Your task to perform on an android device: Open Youtube and go to "Your channel" Image 0: 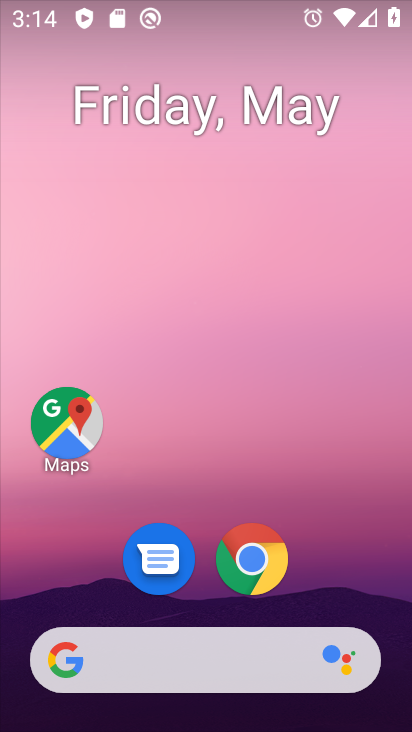
Step 0: drag from (362, 575) to (324, 92)
Your task to perform on an android device: Open Youtube and go to "Your channel" Image 1: 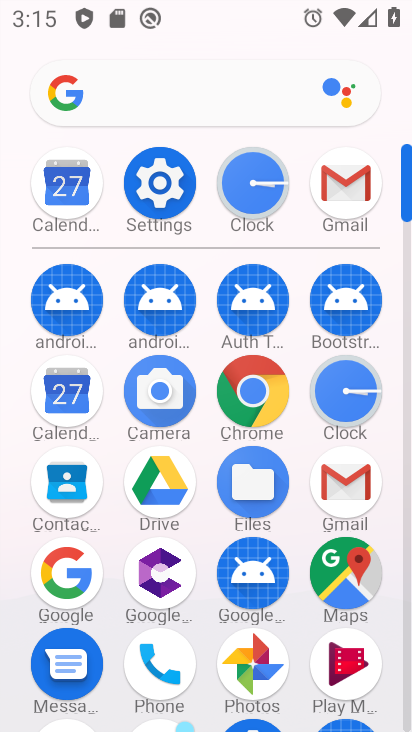
Step 1: click (406, 698)
Your task to perform on an android device: Open Youtube and go to "Your channel" Image 2: 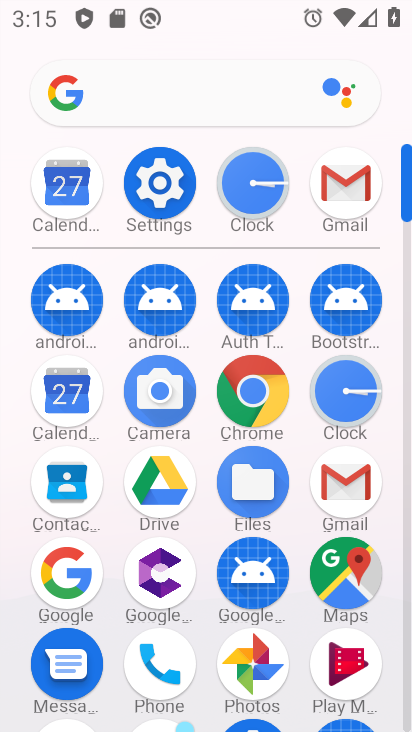
Step 2: click (406, 698)
Your task to perform on an android device: Open Youtube and go to "Your channel" Image 3: 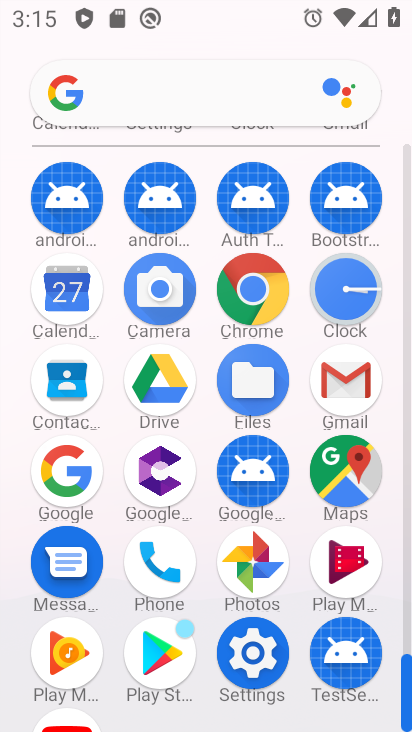
Step 3: click (65, 725)
Your task to perform on an android device: Open Youtube and go to "Your channel" Image 4: 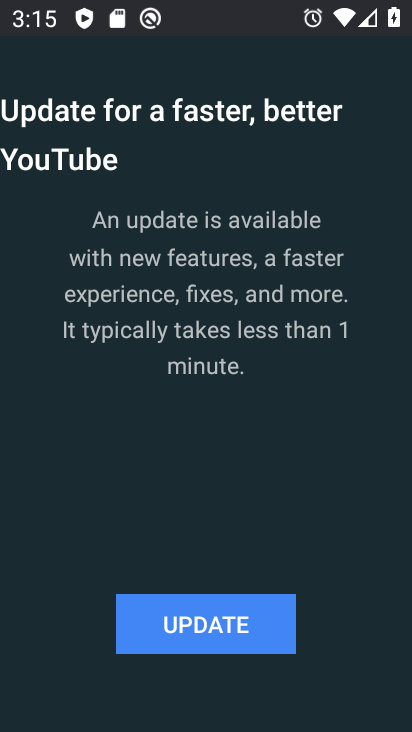
Step 4: click (195, 645)
Your task to perform on an android device: Open Youtube and go to "Your channel" Image 5: 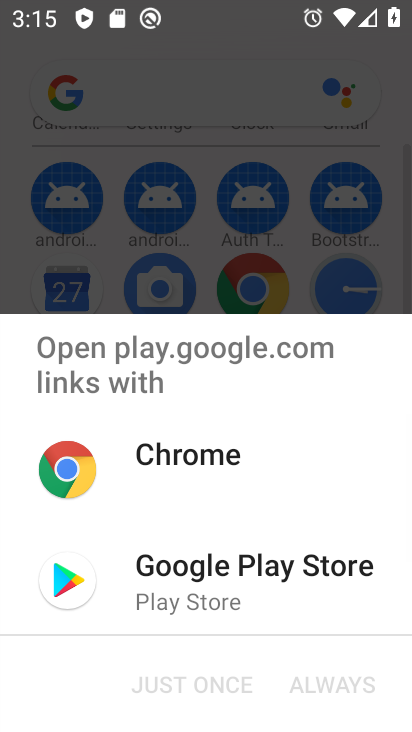
Step 5: click (221, 576)
Your task to perform on an android device: Open Youtube and go to "Your channel" Image 6: 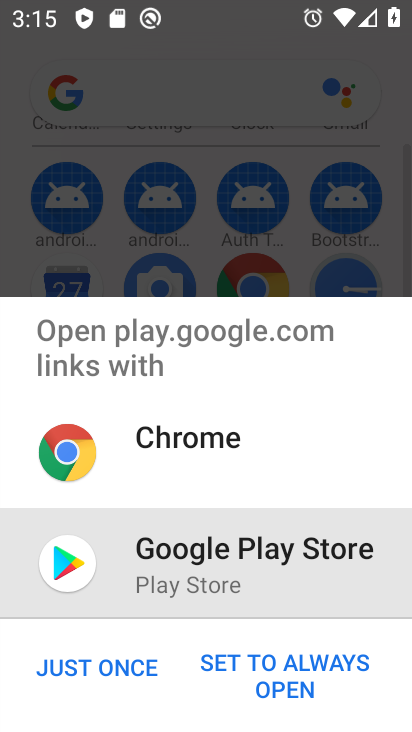
Step 6: click (62, 679)
Your task to perform on an android device: Open Youtube and go to "Your channel" Image 7: 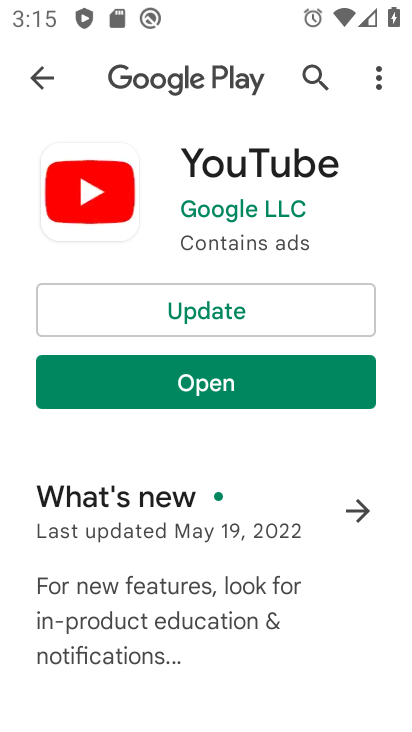
Step 7: click (281, 305)
Your task to perform on an android device: Open Youtube and go to "Your channel" Image 8: 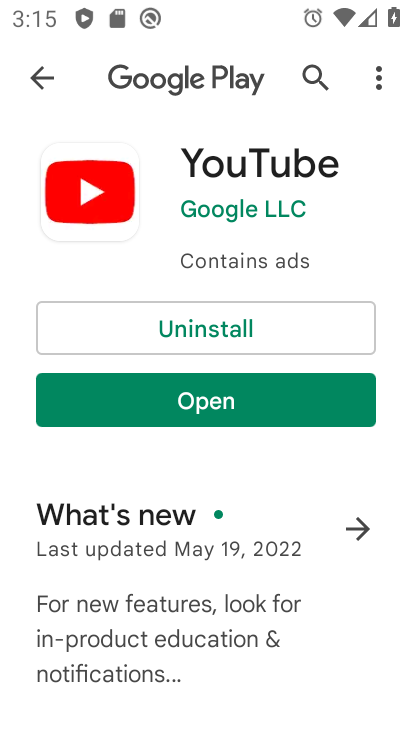
Step 8: click (281, 305)
Your task to perform on an android device: Open Youtube and go to "Your channel" Image 9: 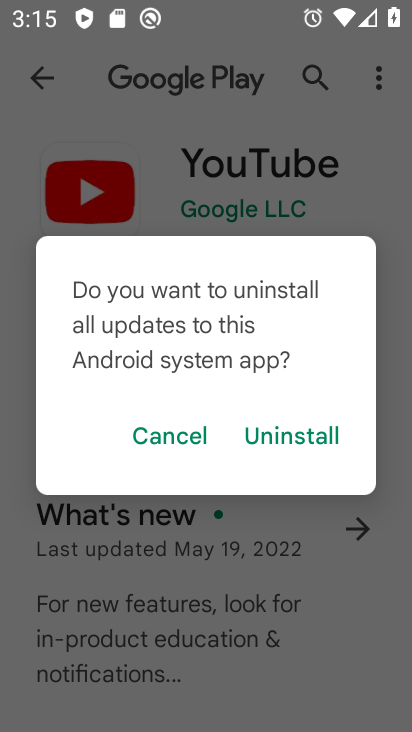
Step 9: click (189, 452)
Your task to perform on an android device: Open Youtube and go to "Your channel" Image 10: 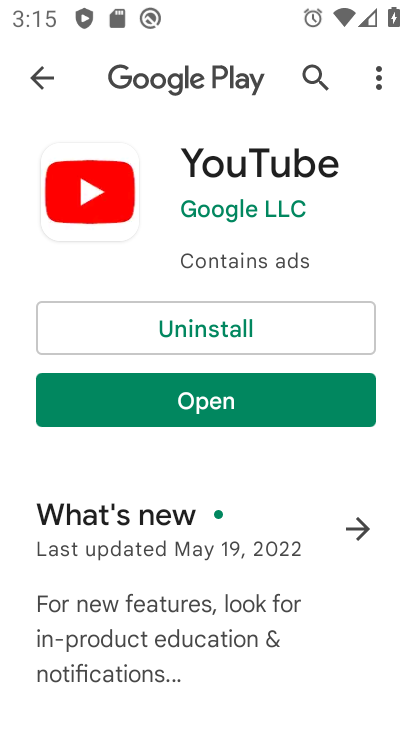
Step 10: click (250, 411)
Your task to perform on an android device: Open Youtube and go to "Your channel" Image 11: 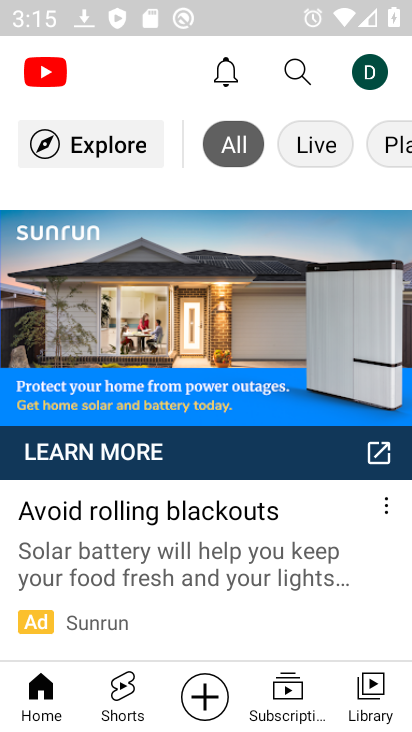
Step 11: click (383, 718)
Your task to perform on an android device: Open Youtube and go to "Your channel" Image 12: 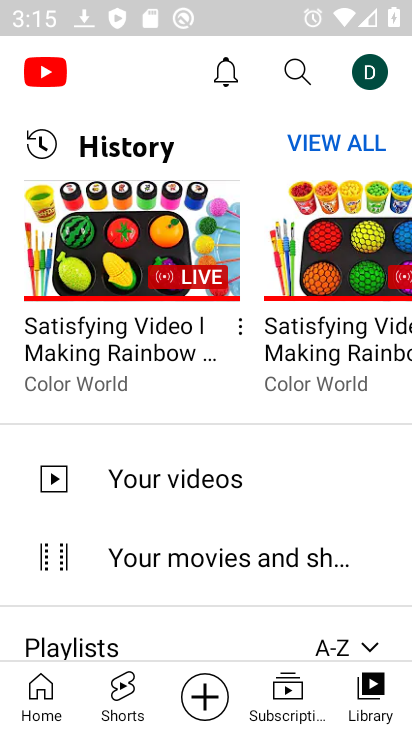
Step 12: click (365, 93)
Your task to perform on an android device: Open Youtube and go to "Your channel" Image 13: 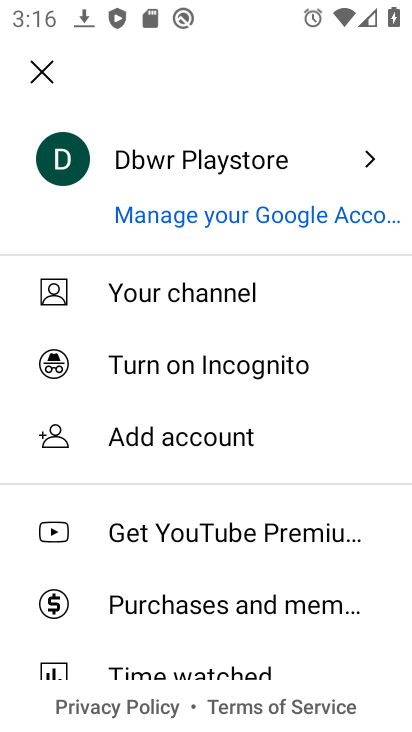
Step 13: click (226, 300)
Your task to perform on an android device: Open Youtube and go to "Your channel" Image 14: 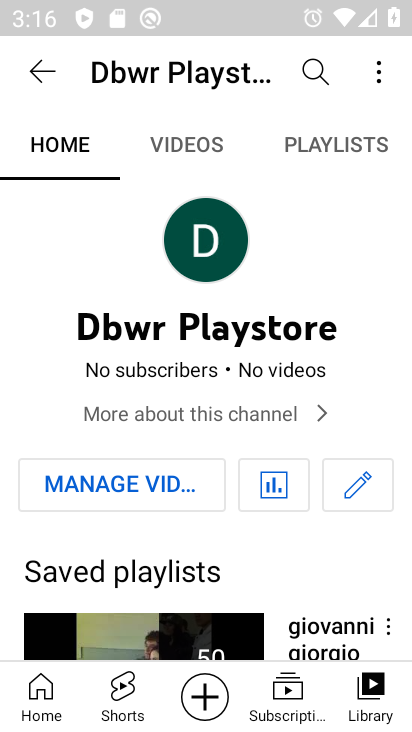
Step 14: task complete